Your task to perform on an android device: turn off location Image 0: 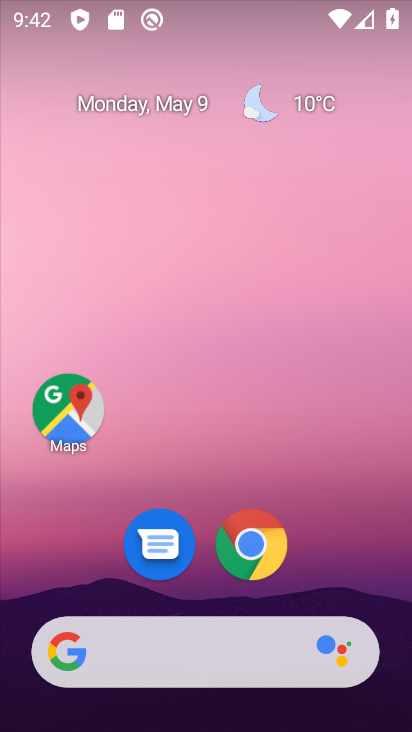
Step 0: drag from (394, 665) to (390, 164)
Your task to perform on an android device: turn off location Image 1: 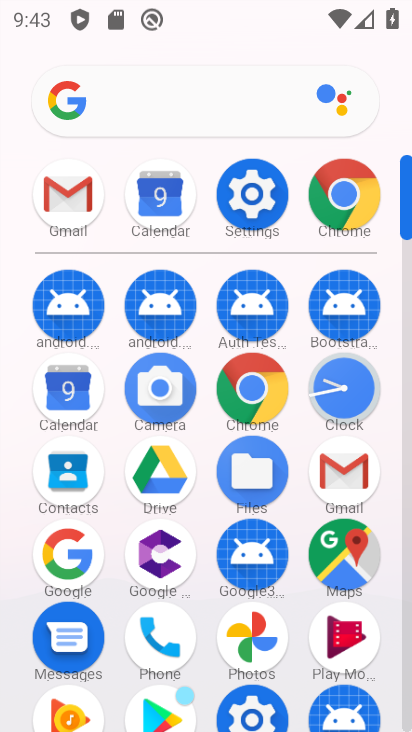
Step 1: click (261, 191)
Your task to perform on an android device: turn off location Image 2: 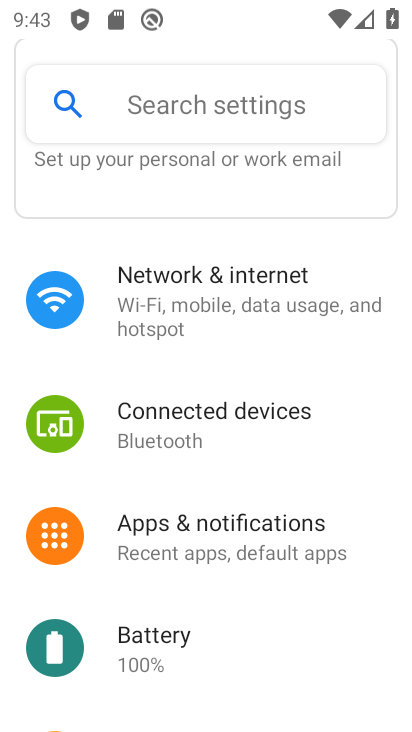
Step 2: drag from (340, 649) to (337, 280)
Your task to perform on an android device: turn off location Image 3: 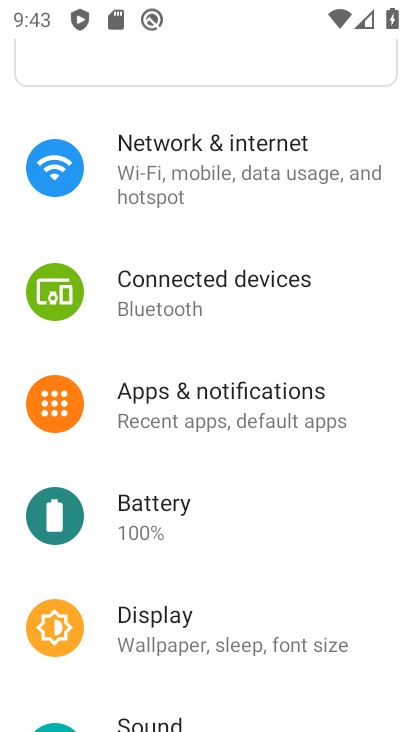
Step 3: drag from (358, 697) to (385, 357)
Your task to perform on an android device: turn off location Image 4: 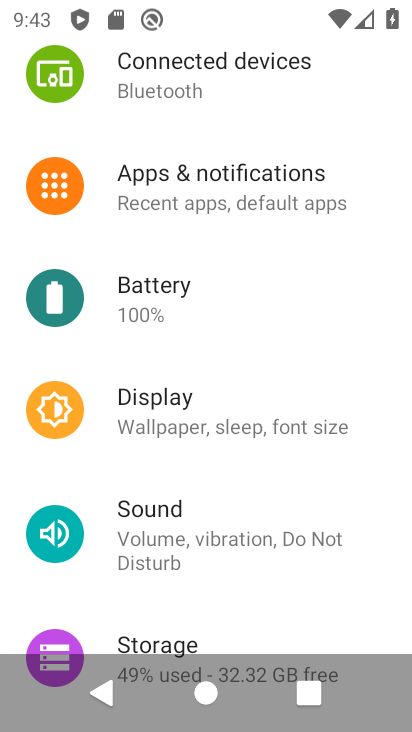
Step 4: drag from (360, 625) to (333, 295)
Your task to perform on an android device: turn off location Image 5: 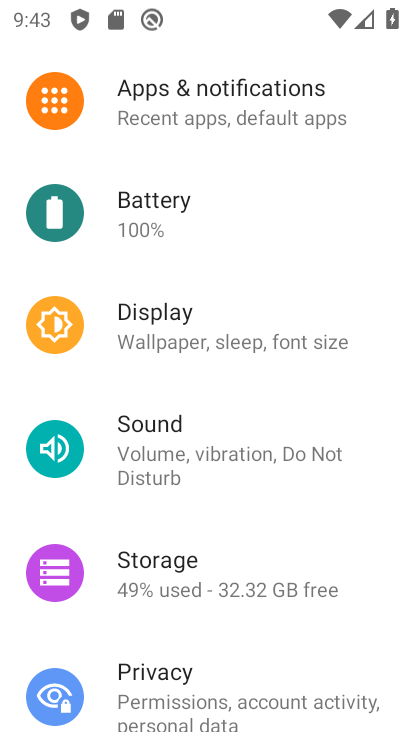
Step 5: drag from (384, 619) to (393, 198)
Your task to perform on an android device: turn off location Image 6: 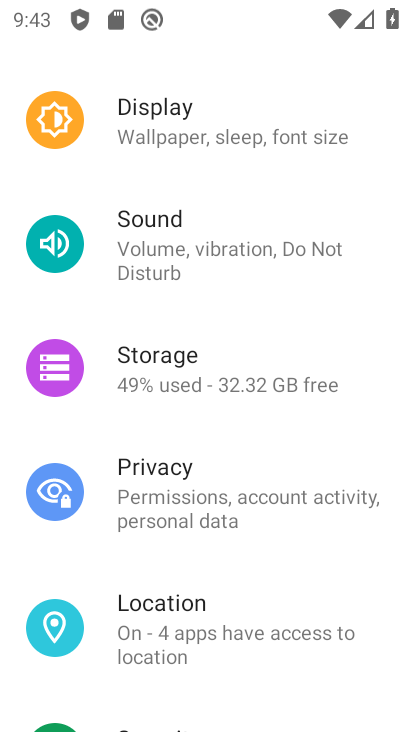
Step 6: click (118, 618)
Your task to perform on an android device: turn off location Image 7: 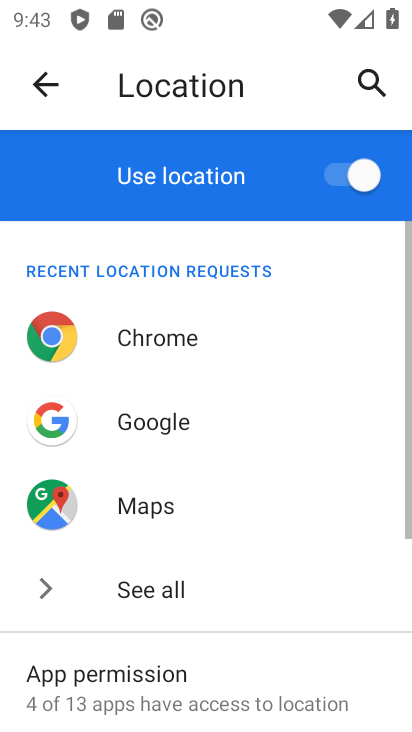
Step 7: click (327, 170)
Your task to perform on an android device: turn off location Image 8: 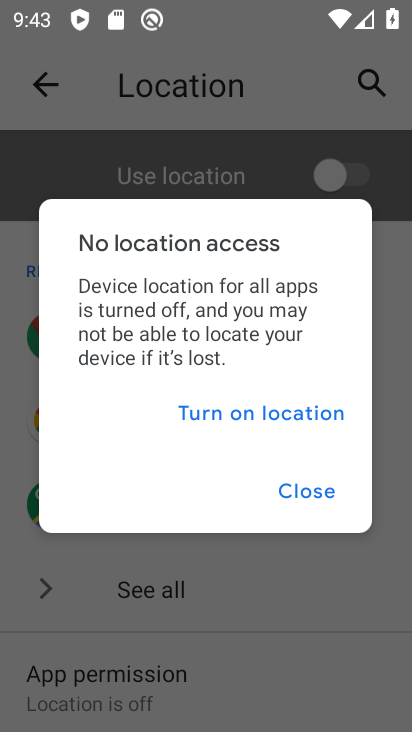
Step 8: task complete